Your task to perform on an android device: Search for "asus rog" on target.com, select the first entry, and add it to the cart. Image 0: 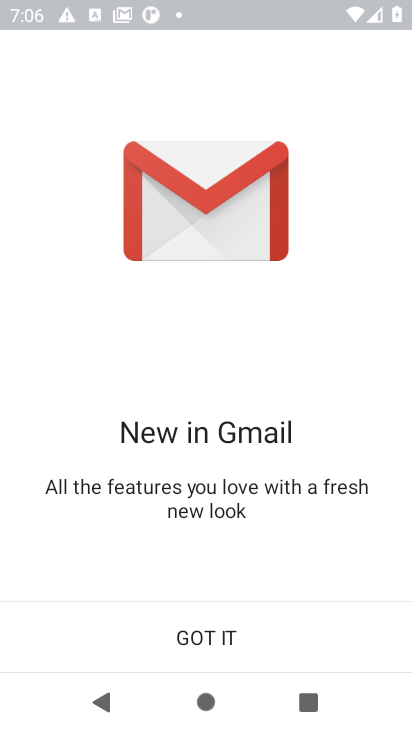
Step 0: press home button
Your task to perform on an android device: Search for "asus rog" on target.com, select the first entry, and add it to the cart. Image 1: 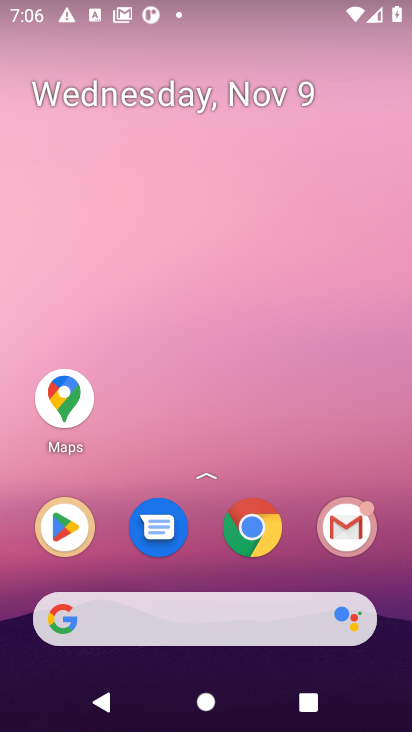
Step 1: click (254, 541)
Your task to perform on an android device: Search for "asus rog" on target.com, select the first entry, and add it to the cart. Image 2: 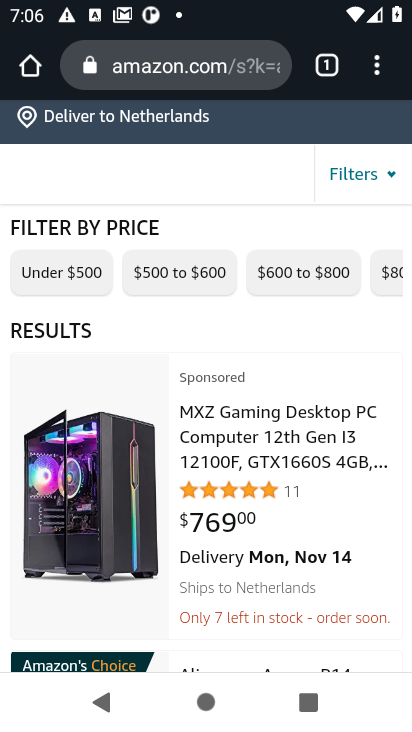
Step 2: click (185, 77)
Your task to perform on an android device: Search for "asus rog" on target.com, select the first entry, and add it to the cart. Image 3: 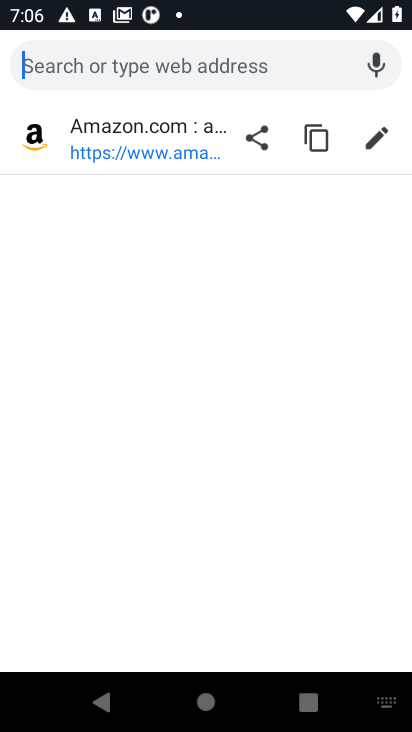
Step 3: type "target.com"
Your task to perform on an android device: Search for "asus rog" on target.com, select the first entry, and add it to the cart. Image 4: 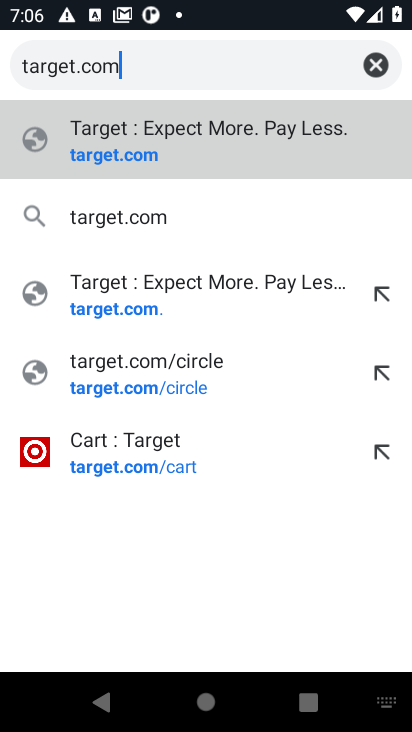
Step 4: click (101, 138)
Your task to perform on an android device: Search for "asus rog" on target.com, select the first entry, and add it to the cart. Image 5: 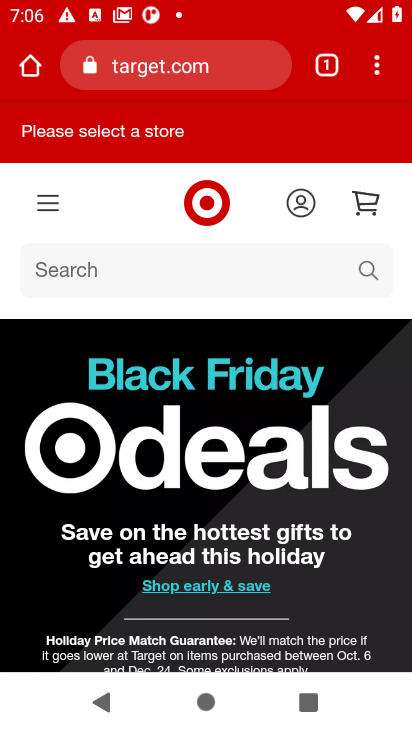
Step 5: click (362, 272)
Your task to perform on an android device: Search for "asus rog" on target.com, select the first entry, and add it to the cart. Image 6: 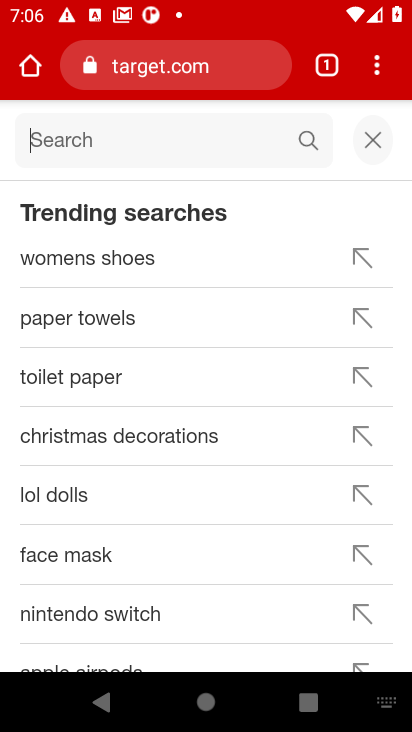
Step 6: type "asus rog"
Your task to perform on an android device: Search for "asus rog" on target.com, select the first entry, and add it to the cart. Image 7: 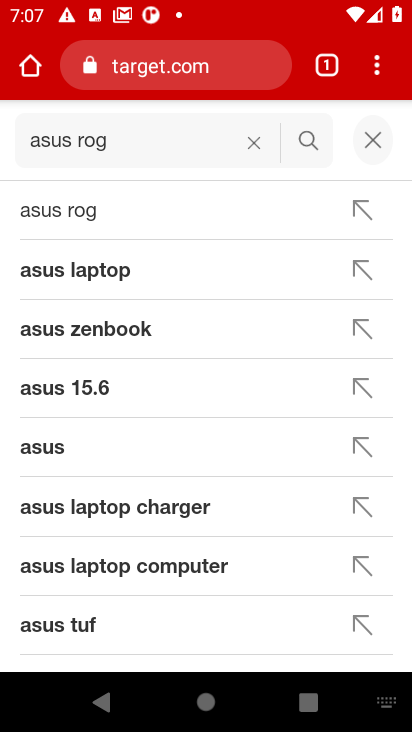
Step 7: click (46, 217)
Your task to perform on an android device: Search for "asus rog" on target.com, select the first entry, and add it to the cart. Image 8: 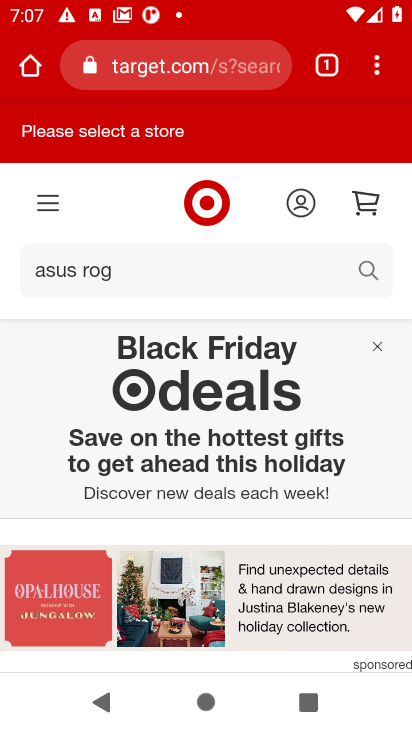
Step 8: drag from (155, 473) to (155, 125)
Your task to perform on an android device: Search for "asus rog" on target.com, select the first entry, and add it to the cart. Image 9: 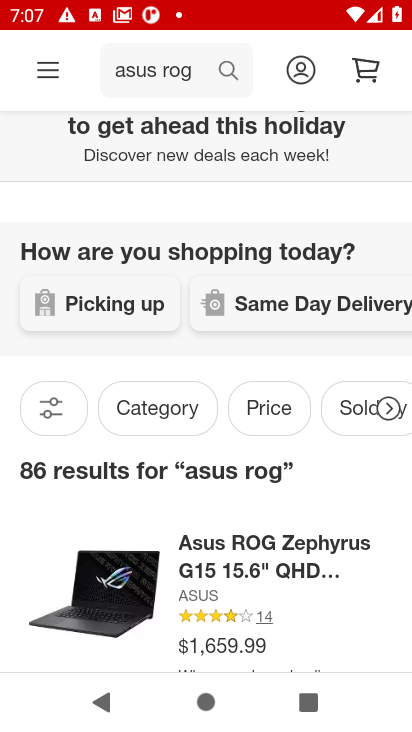
Step 9: drag from (147, 516) to (163, 279)
Your task to perform on an android device: Search for "asus rog" on target.com, select the first entry, and add it to the cart. Image 10: 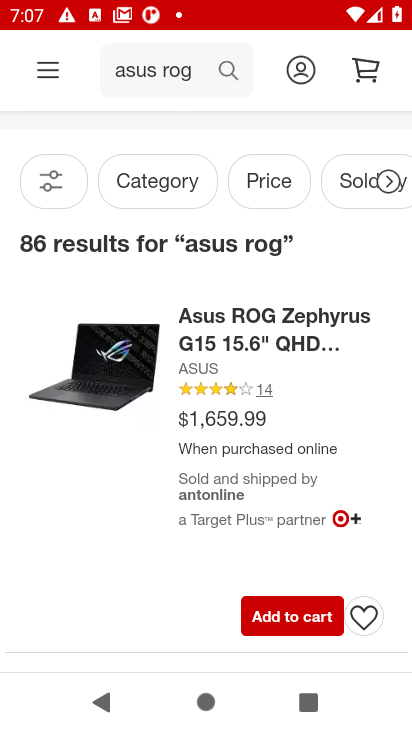
Step 10: click (284, 625)
Your task to perform on an android device: Search for "asus rog" on target.com, select the first entry, and add it to the cart. Image 11: 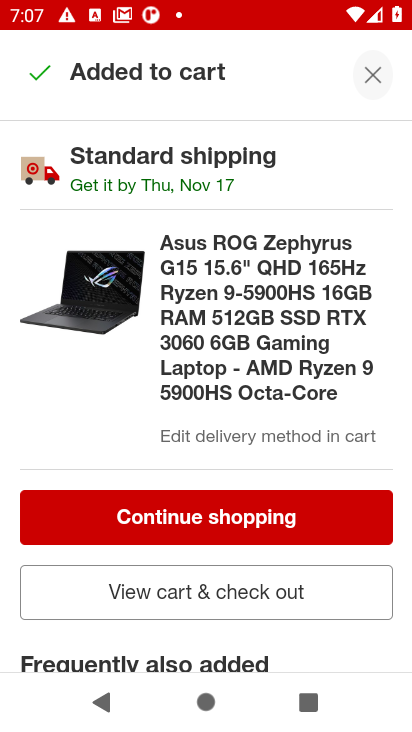
Step 11: task complete